Your task to perform on an android device: make emails show in primary in the gmail app Image 0: 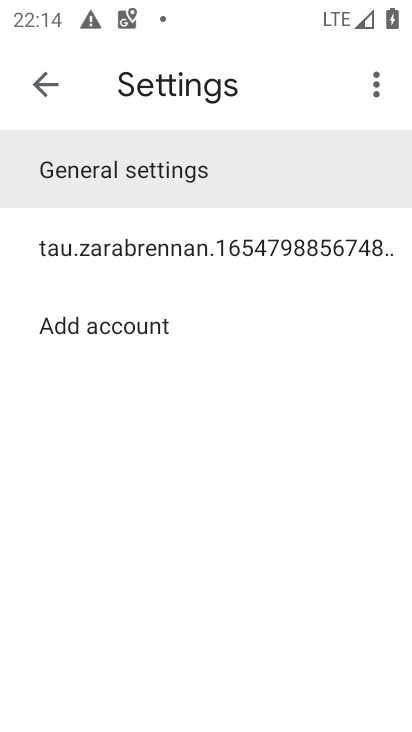
Step 0: press home button
Your task to perform on an android device: make emails show in primary in the gmail app Image 1: 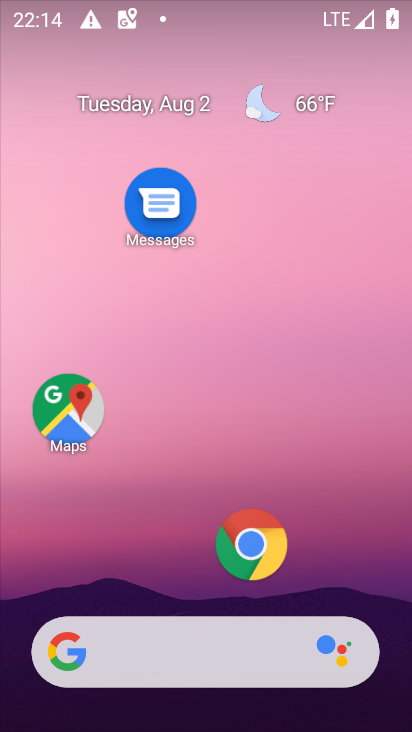
Step 1: drag from (195, 589) to (182, 195)
Your task to perform on an android device: make emails show in primary in the gmail app Image 2: 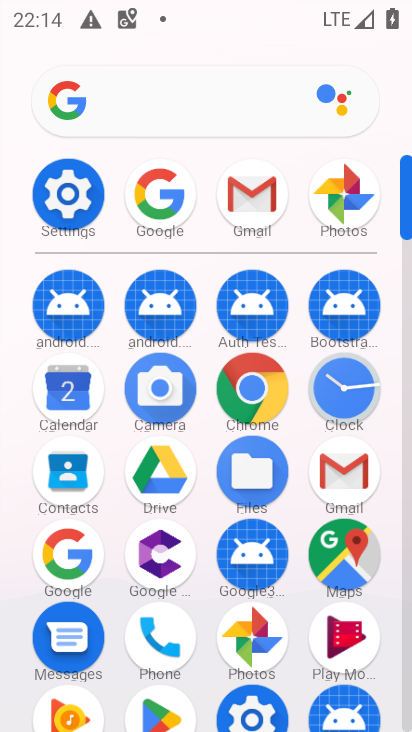
Step 2: click (230, 204)
Your task to perform on an android device: make emails show in primary in the gmail app Image 3: 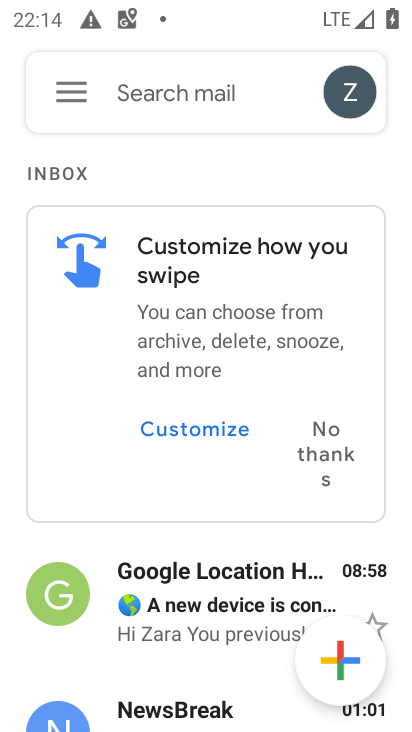
Step 3: click (64, 88)
Your task to perform on an android device: make emails show in primary in the gmail app Image 4: 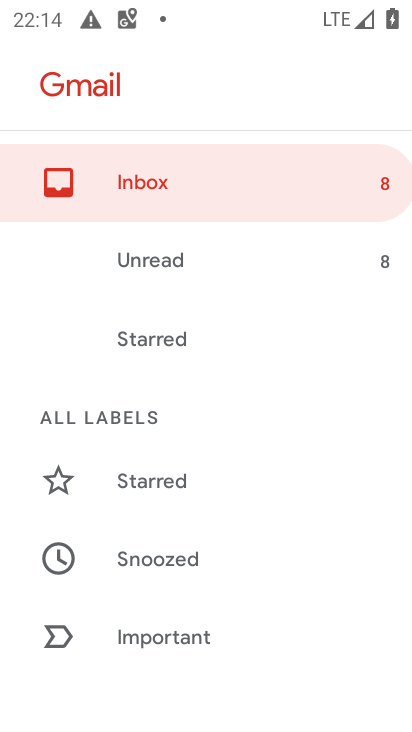
Step 4: drag from (210, 638) to (204, 303)
Your task to perform on an android device: make emails show in primary in the gmail app Image 5: 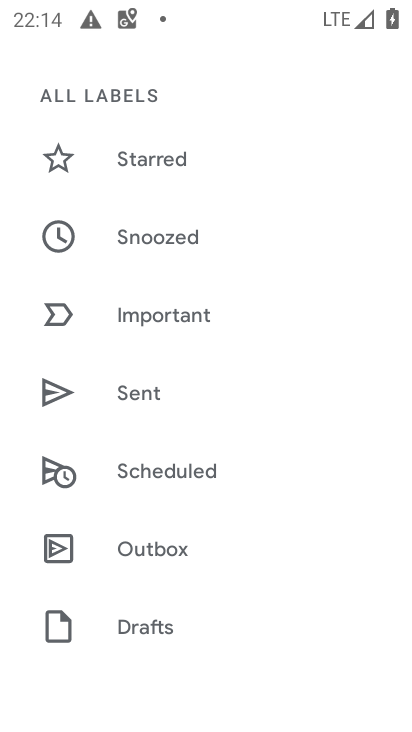
Step 5: drag from (213, 655) to (239, 318)
Your task to perform on an android device: make emails show in primary in the gmail app Image 6: 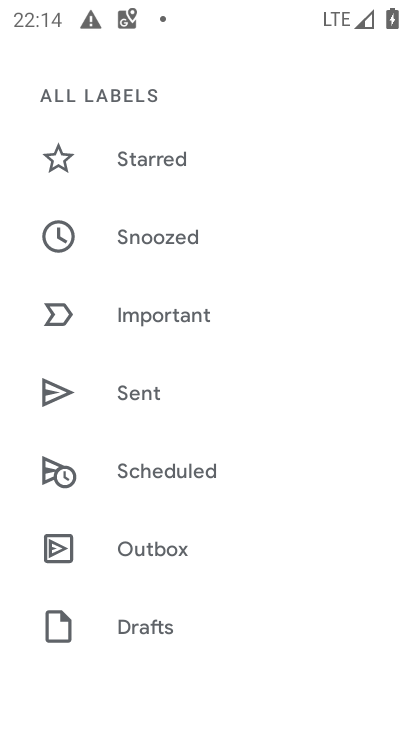
Step 6: drag from (186, 609) to (245, 293)
Your task to perform on an android device: make emails show in primary in the gmail app Image 7: 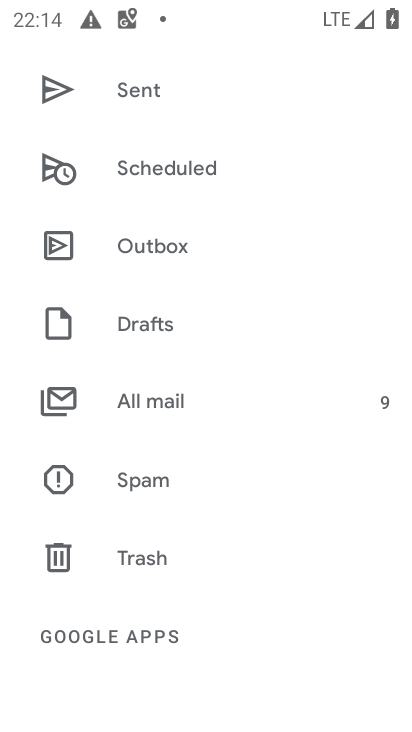
Step 7: drag from (170, 582) to (198, 266)
Your task to perform on an android device: make emails show in primary in the gmail app Image 8: 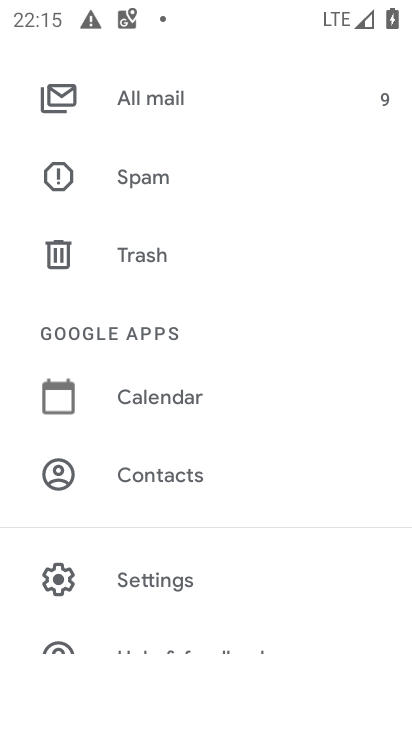
Step 8: click (171, 575)
Your task to perform on an android device: make emails show in primary in the gmail app Image 9: 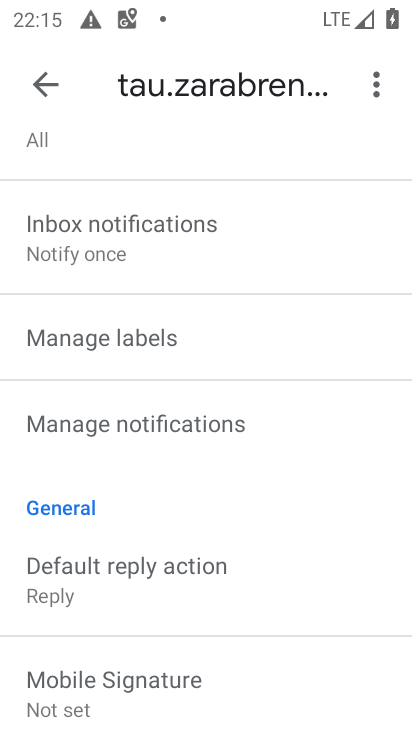
Step 9: drag from (222, 343) to (250, 682)
Your task to perform on an android device: make emails show in primary in the gmail app Image 10: 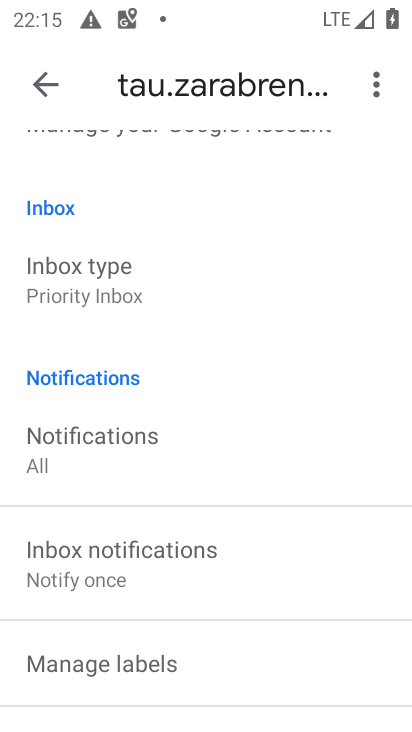
Step 10: click (151, 290)
Your task to perform on an android device: make emails show in primary in the gmail app Image 11: 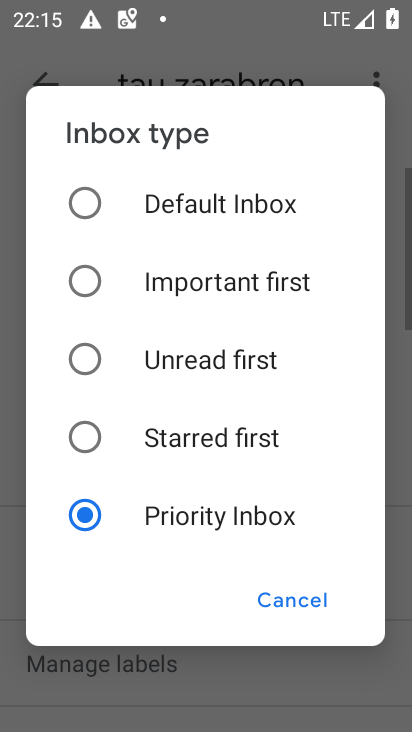
Step 11: click (138, 205)
Your task to perform on an android device: make emails show in primary in the gmail app Image 12: 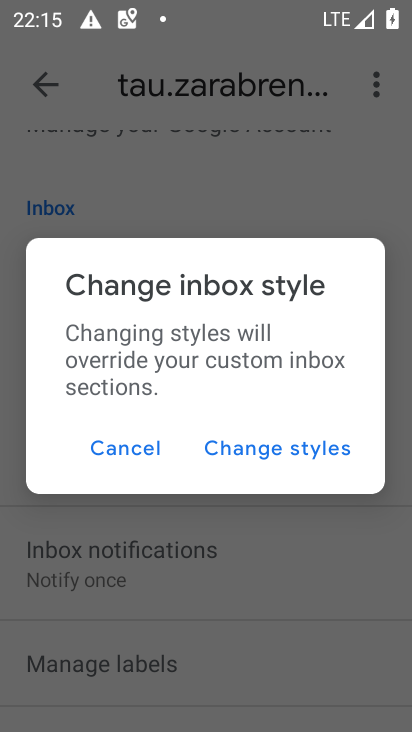
Step 12: click (288, 450)
Your task to perform on an android device: make emails show in primary in the gmail app Image 13: 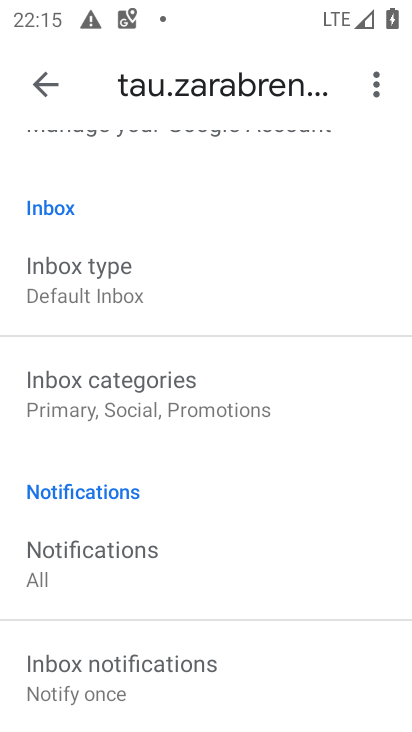
Step 13: task complete